Your task to perform on an android device: all mails in gmail Image 0: 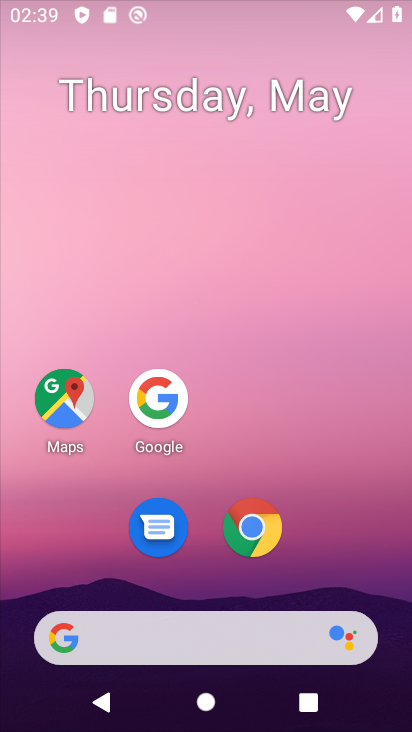
Step 0: drag from (228, 573) to (269, 99)
Your task to perform on an android device: all mails in gmail Image 1: 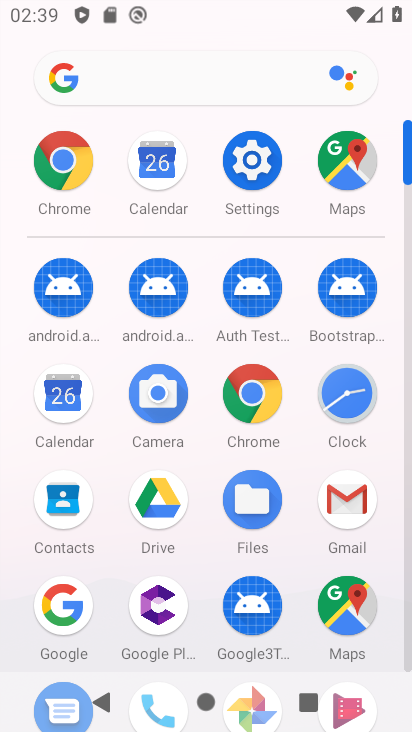
Step 1: click (343, 505)
Your task to perform on an android device: all mails in gmail Image 2: 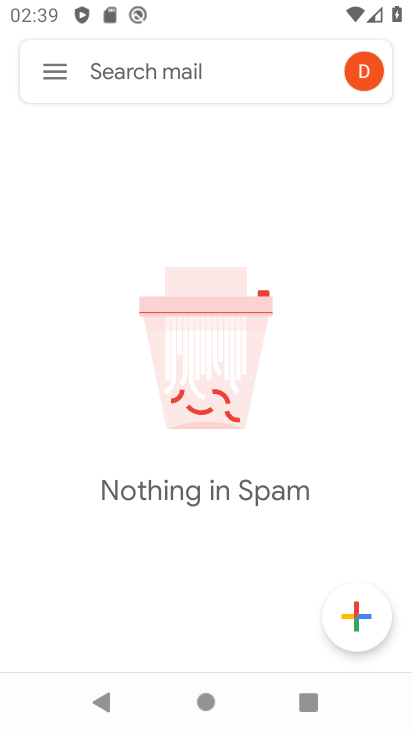
Step 2: click (68, 64)
Your task to perform on an android device: all mails in gmail Image 3: 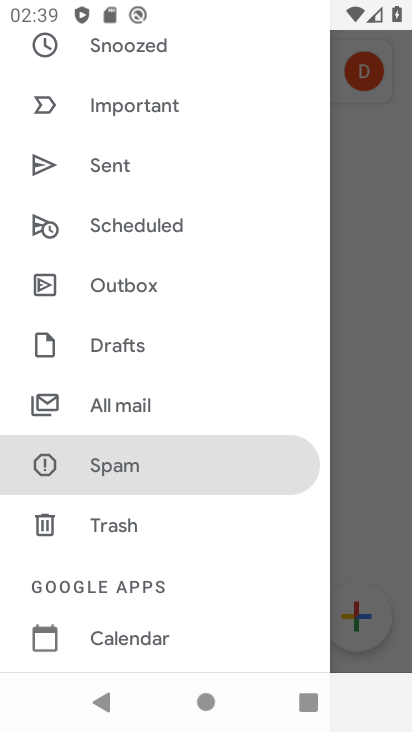
Step 3: click (113, 400)
Your task to perform on an android device: all mails in gmail Image 4: 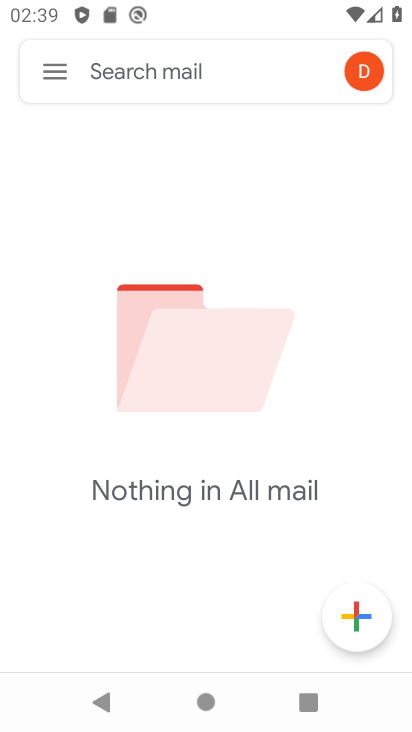
Step 4: task complete